Your task to perform on an android device: What's a good restaurant in Chicago? Image 0: 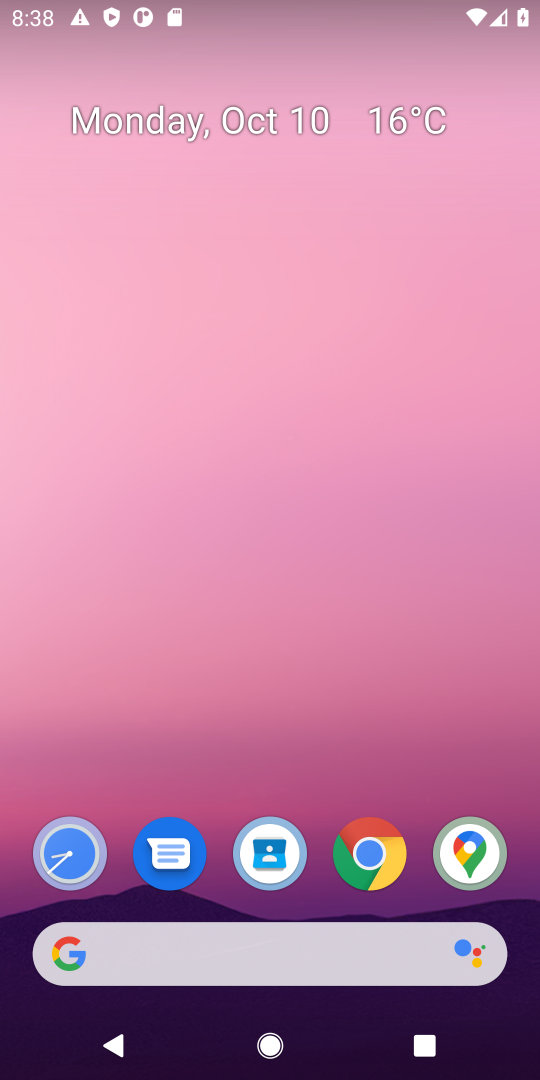
Step 0: drag from (323, 858) to (340, 154)
Your task to perform on an android device: What's a good restaurant in Chicago? Image 1: 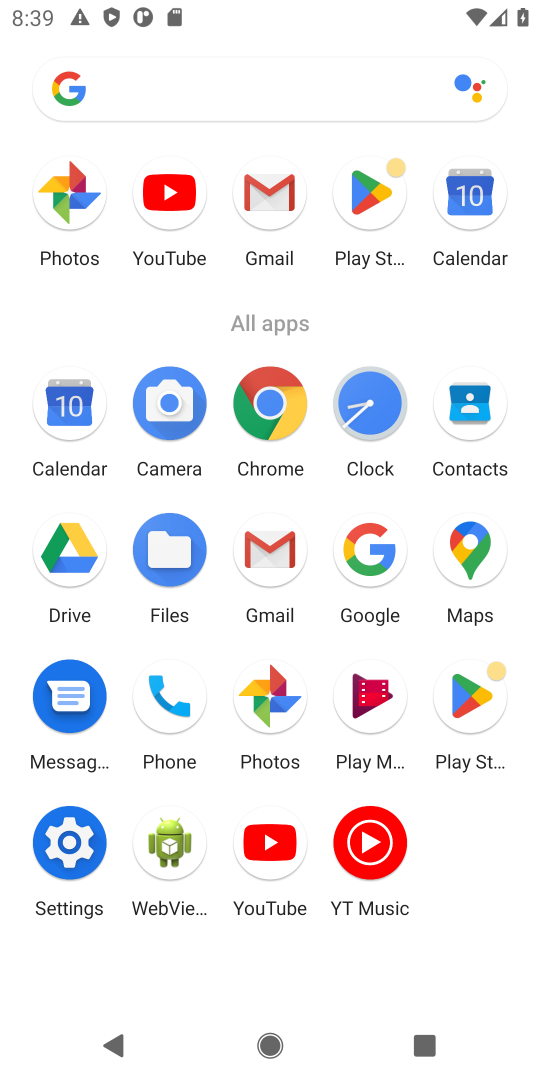
Step 1: click (272, 400)
Your task to perform on an android device: What's a good restaurant in Chicago? Image 2: 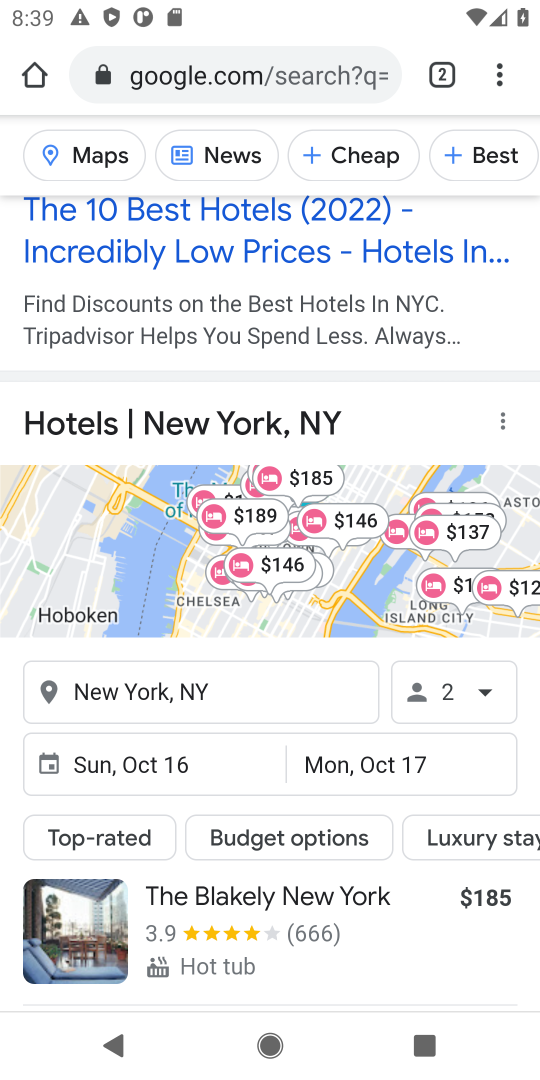
Step 2: drag from (308, 226) to (375, 750)
Your task to perform on an android device: What's a good restaurant in Chicago? Image 3: 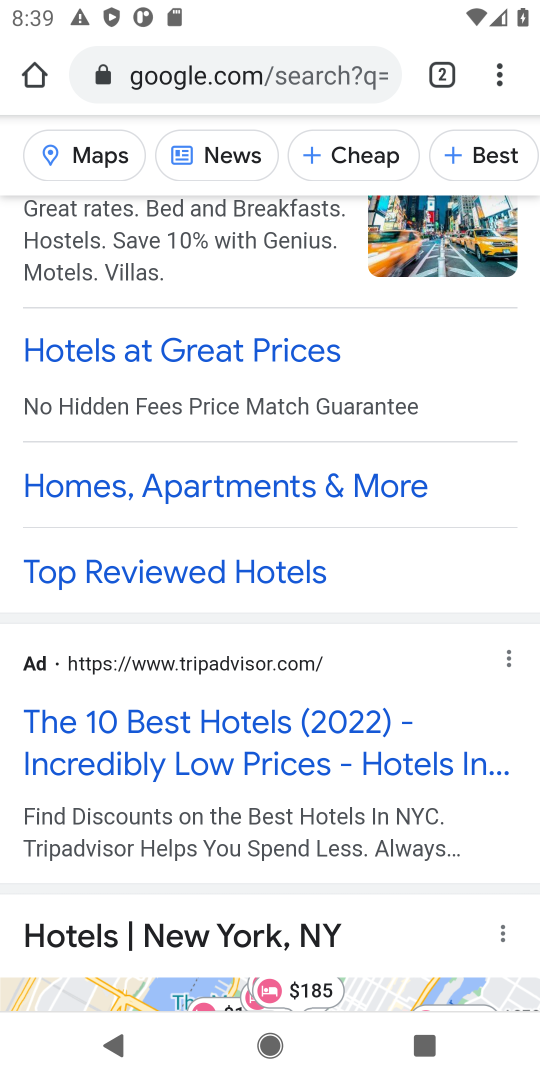
Step 3: drag from (309, 308) to (387, 789)
Your task to perform on an android device: What's a good restaurant in Chicago? Image 4: 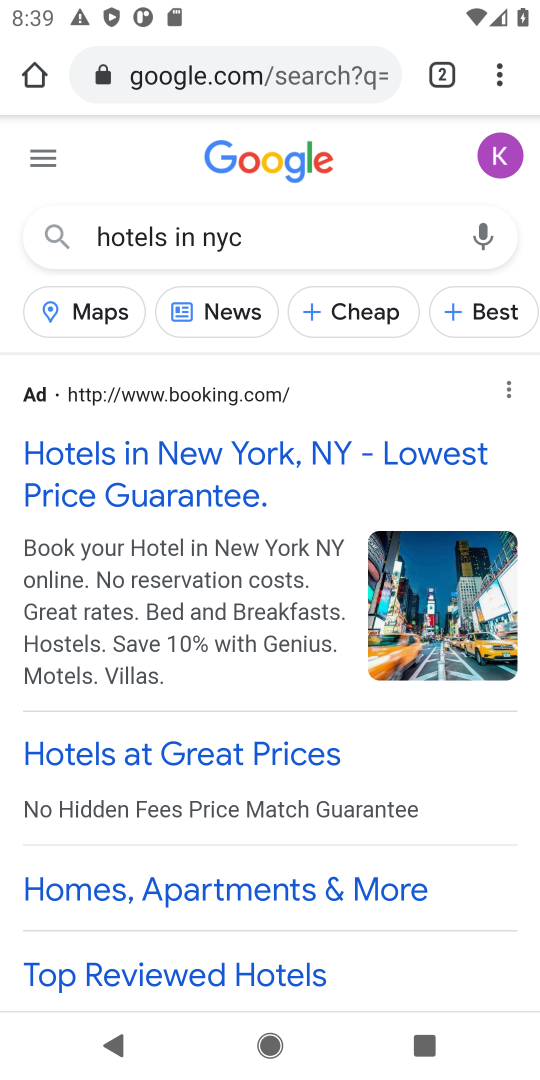
Step 4: click (297, 244)
Your task to perform on an android device: What's a good restaurant in Chicago? Image 5: 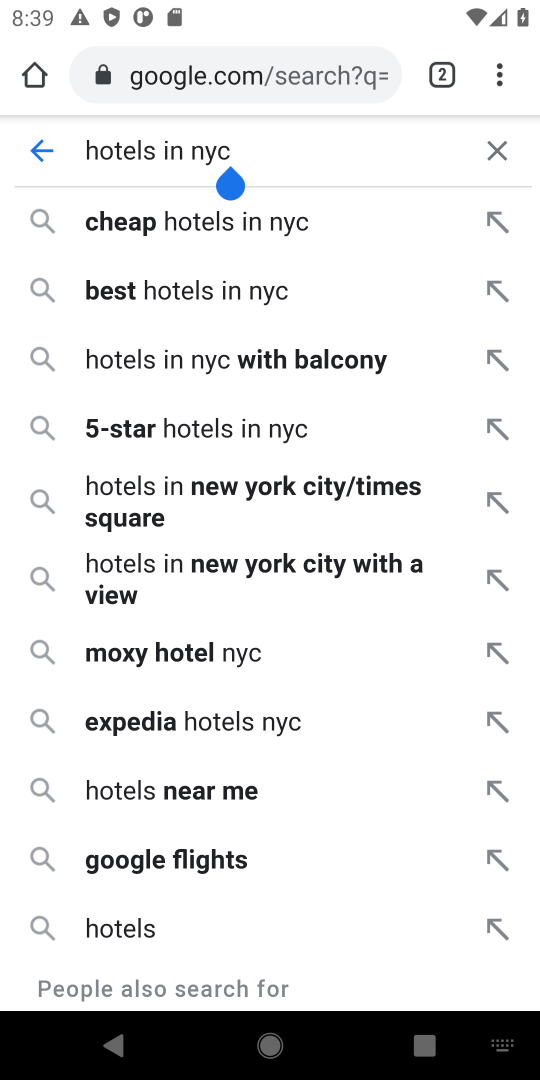
Step 5: click (496, 155)
Your task to perform on an android device: What's a good restaurant in Chicago? Image 6: 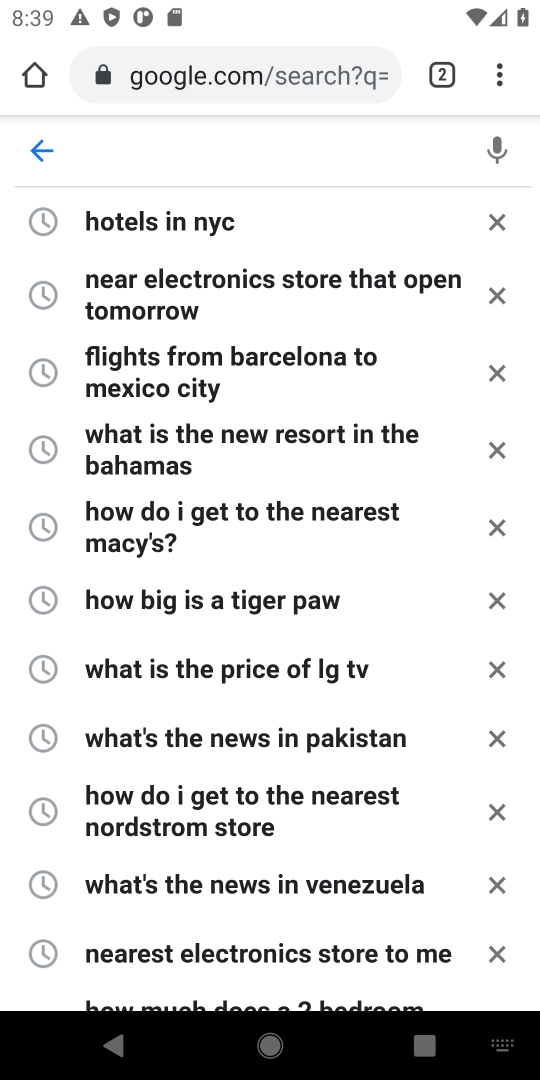
Step 6: type "What's a good restaurant in Chicago?"
Your task to perform on an android device: What's a good restaurant in Chicago? Image 7: 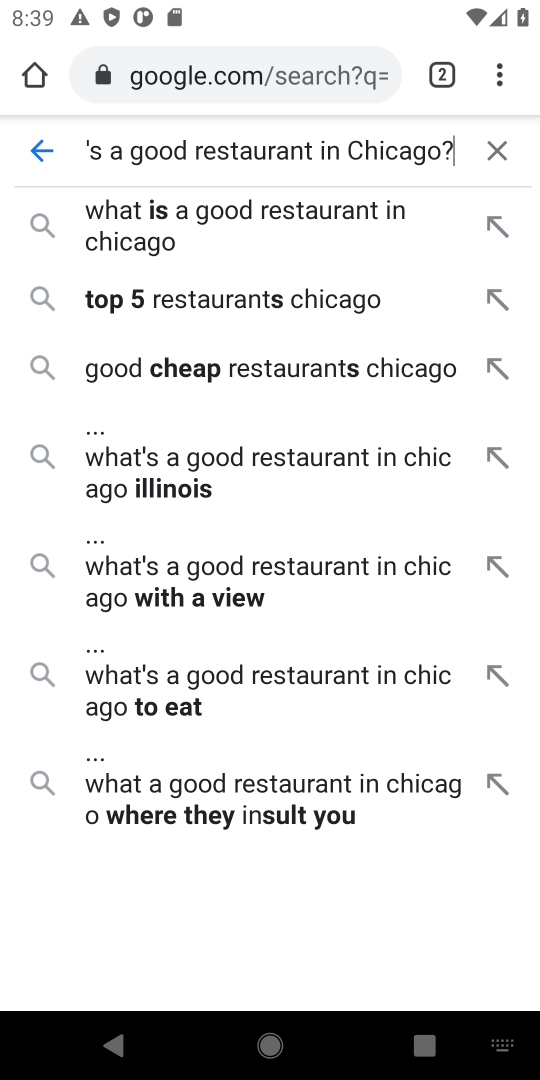
Step 7: type ""
Your task to perform on an android device: What's a good restaurant in Chicago? Image 8: 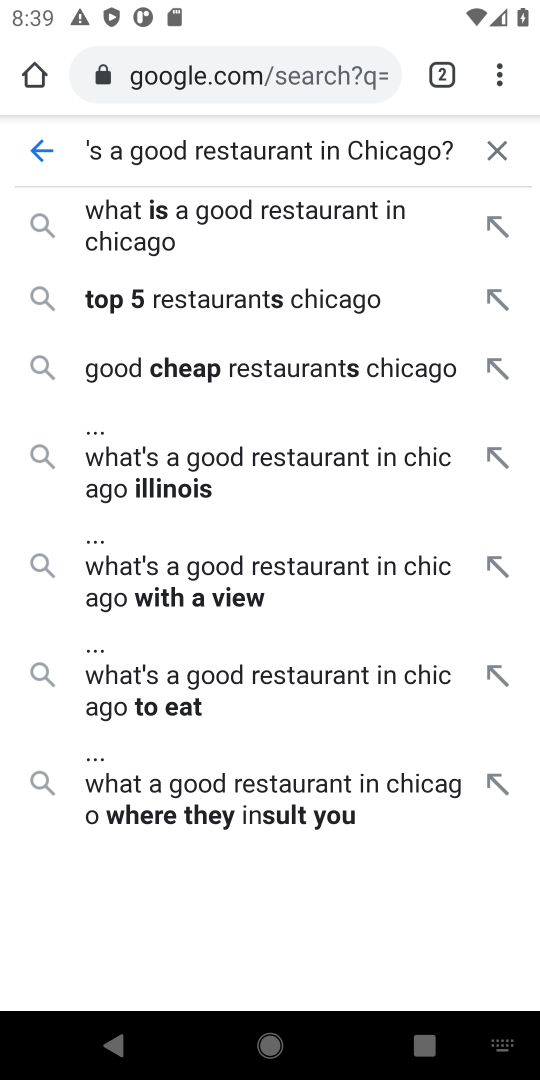
Step 8: click (235, 216)
Your task to perform on an android device: What's a good restaurant in Chicago? Image 9: 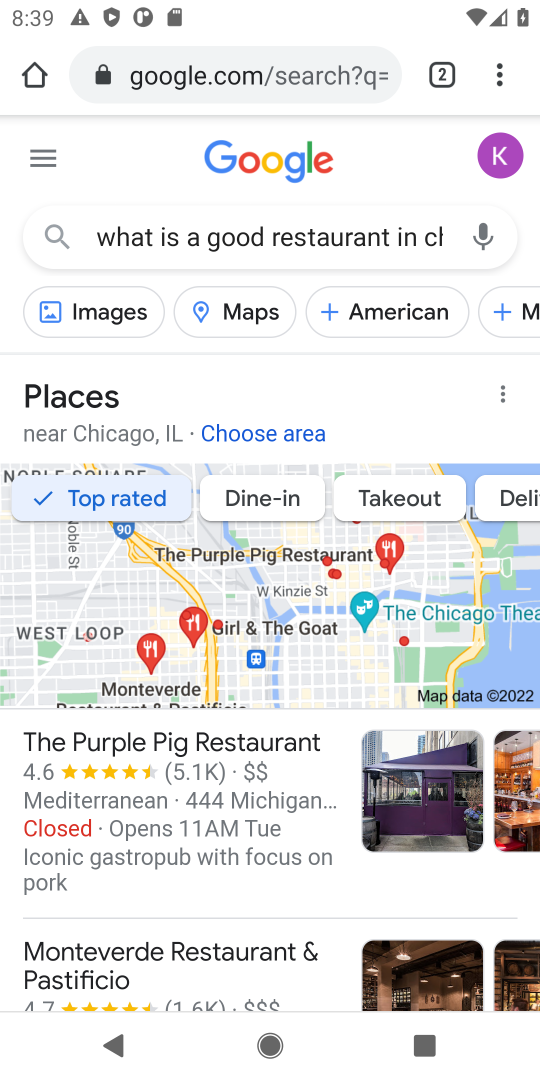
Step 9: task complete